Your task to perform on an android device: Go to eBay Image 0: 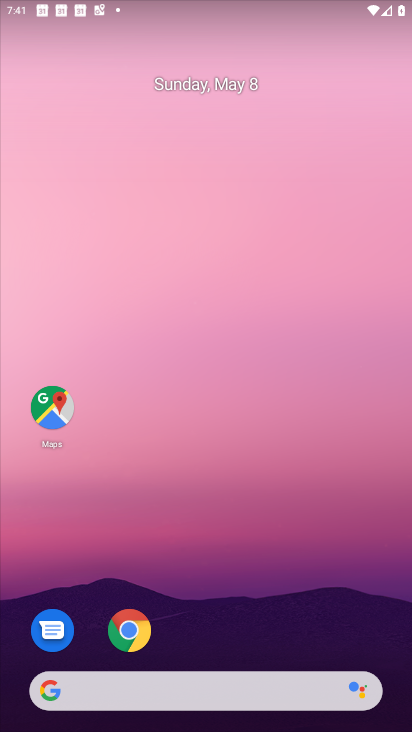
Step 0: drag from (196, 613) to (249, 119)
Your task to perform on an android device: Go to eBay Image 1: 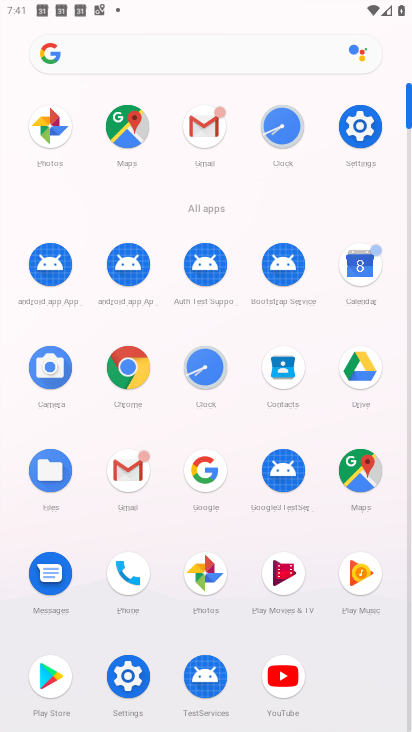
Step 1: drag from (165, 624) to (225, 310)
Your task to perform on an android device: Go to eBay Image 2: 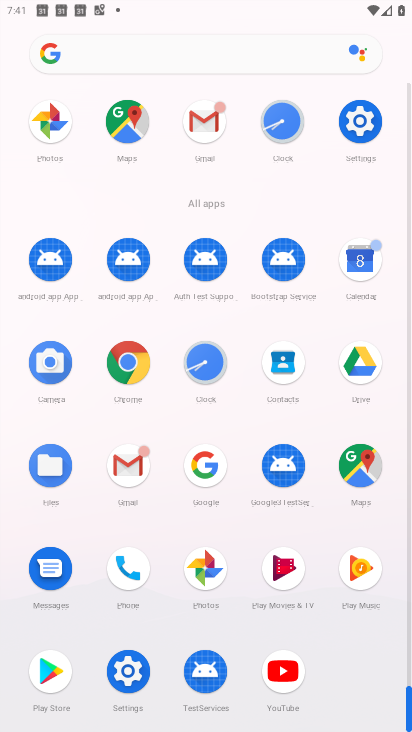
Step 2: drag from (165, 628) to (214, 168)
Your task to perform on an android device: Go to eBay Image 3: 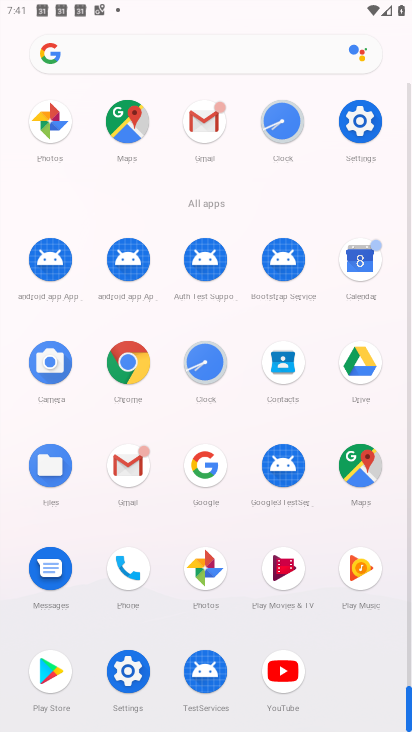
Step 3: click (131, 61)
Your task to perform on an android device: Go to eBay Image 4: 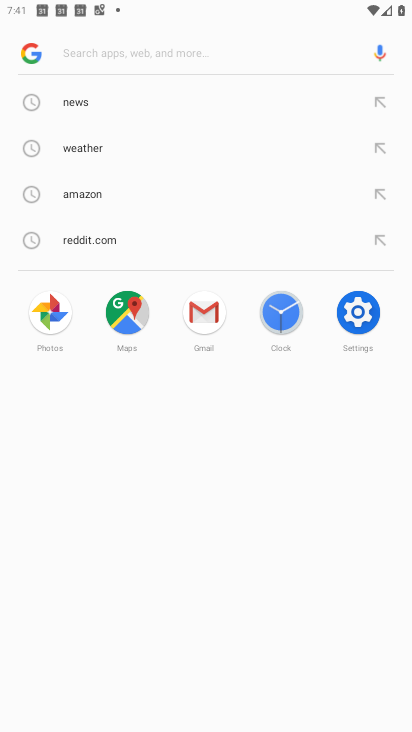
Step 4: type "ebay"
Your task to perform on an android device: Go to eBay Image 5: 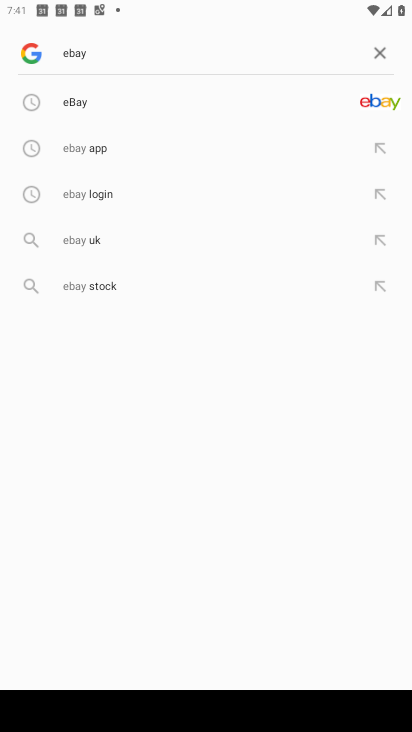
Step 5: click (128, 106)
Your task to perform on an android device: Go to eBay Image 6: 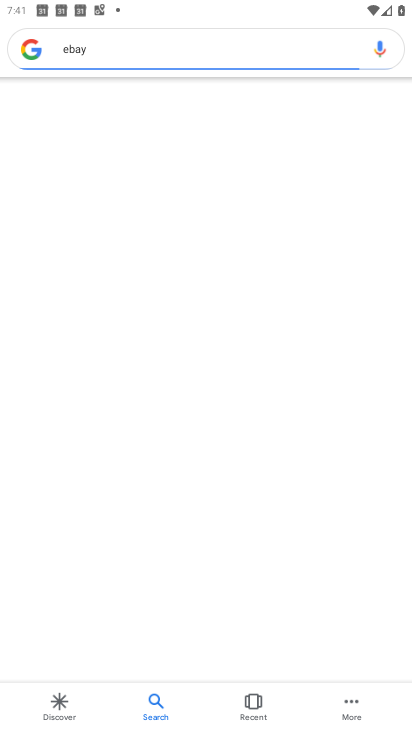
Step 6: drag from (216, 596) to (311, 143)
Your task to perform on an android device: Go to eBay Image 7: 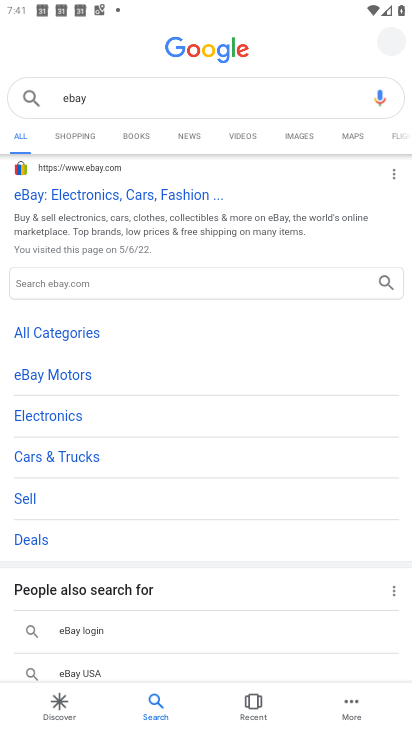
Step 7: drag from (235, 475) to (286, 698)
Your task to perform on an android device: Go to eBay Image 8: 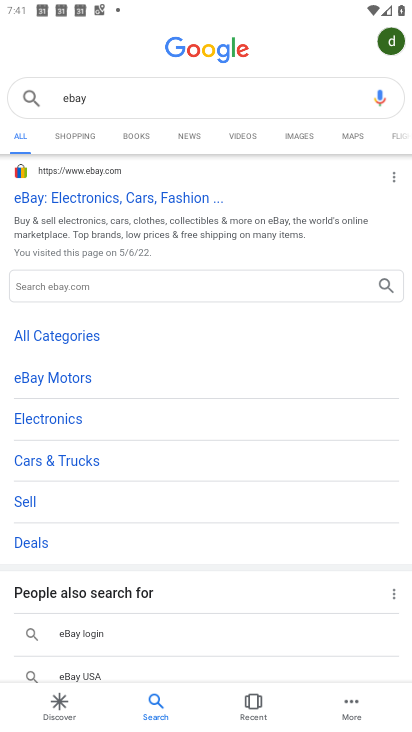
Step 8: click (86, 193)
Your task to perform on an android device: Go to eBay Image 9: 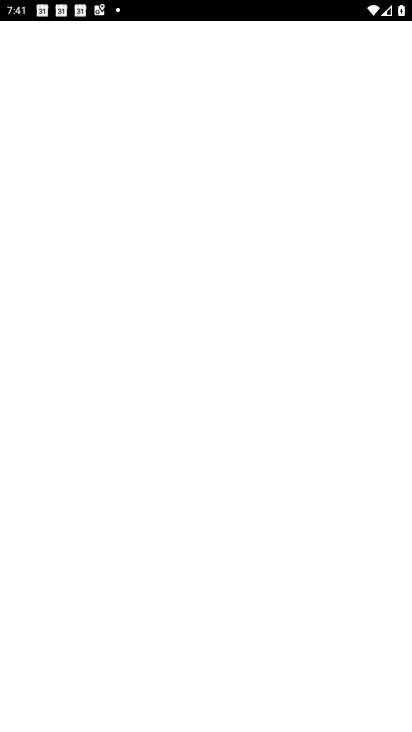
Step 9: task complete